Your task to perform on an android device: Open display settings Image 0: 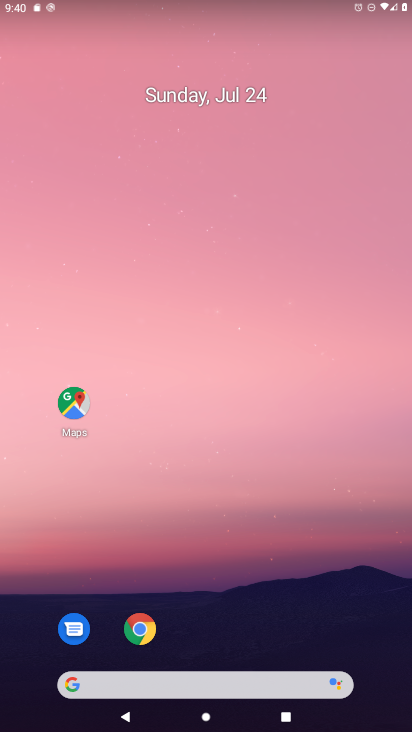
Step 0: drag from (352, 654) to (111, 34)
Your task to perform on an android device: Open display settings Image 1: 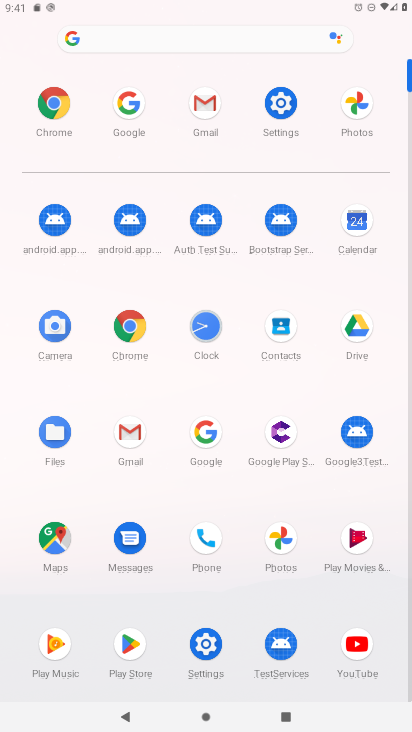
Step 1: click (196, 640)
Your task to perform on an android device: Open display settings Image 2: 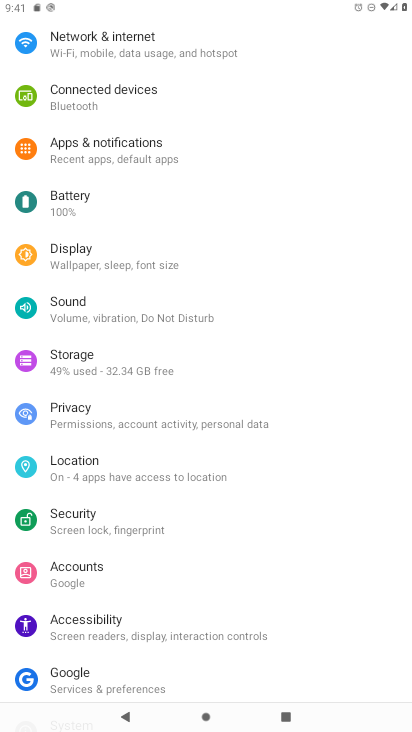
Step 2: click (128, 266)
Your task to perform on an android device: Open display settings Image 3: 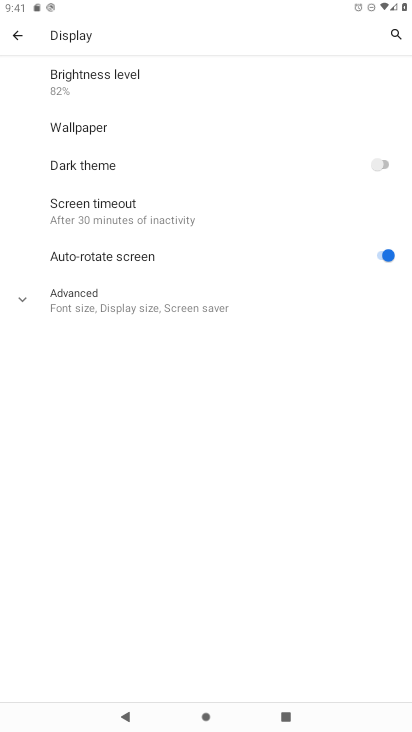
Step 3: task complete